Your task to perform on an android device: Open wifi settings Image 0: 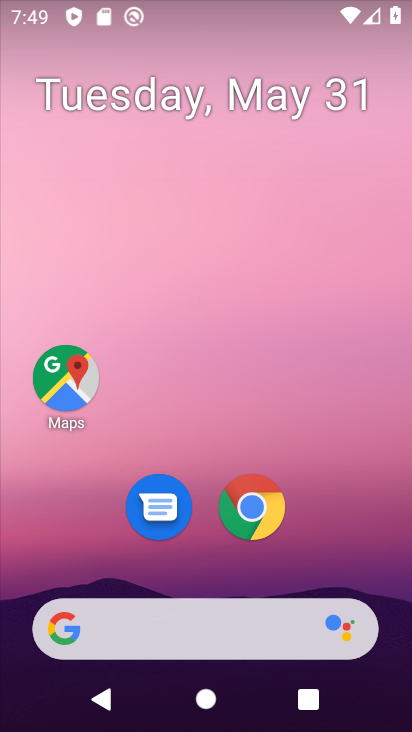
Step 0: drag from (364, 513) to (325, 174)
Your task to perform on an android device: Open wifi settings Image 1: 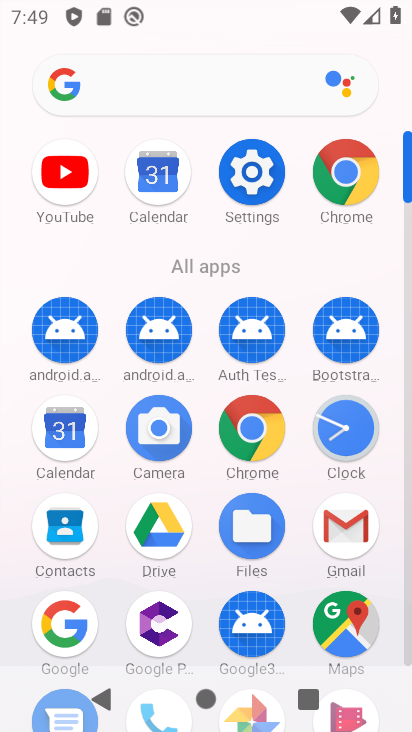
Step 1: click (249, 161)
Your task to perform on an android device: Open wifi settings Image 2: 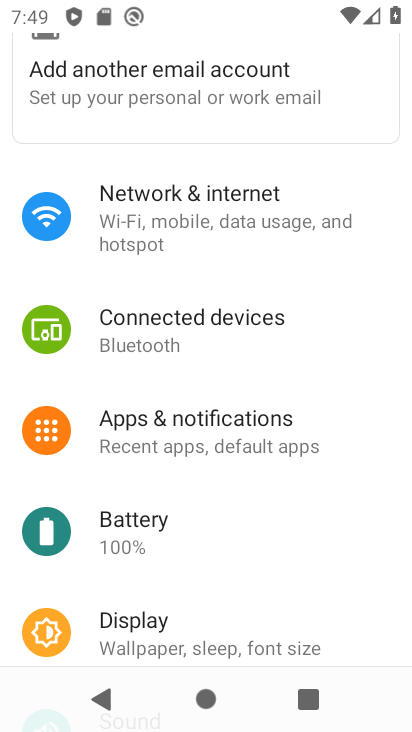
Step 2: click (212, 190)
Your task to perform on an android device: Open wifi settings Image 3: 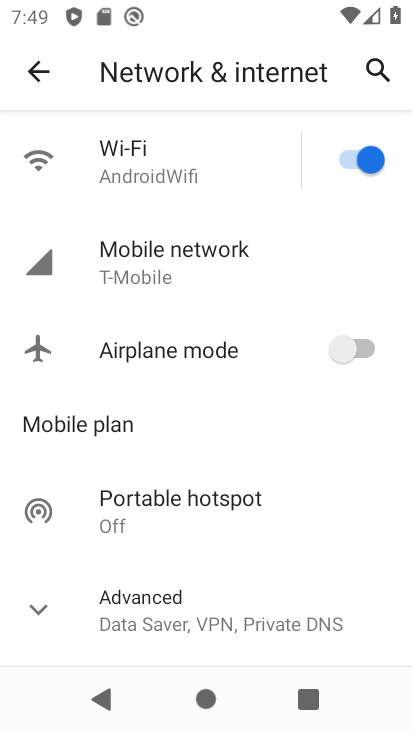
Step 3: click (213, 180)
Your task to perform on an android device: Open wifi settings Image 4: 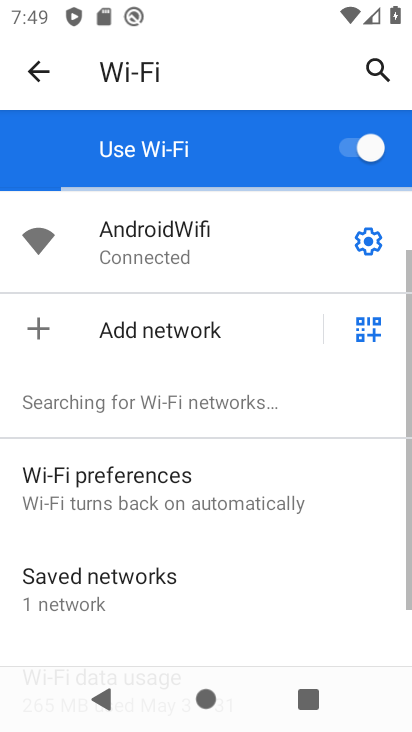
Step 4: click (350, 234)
Your task to perform on an android device: Open wifi settings Image 5: 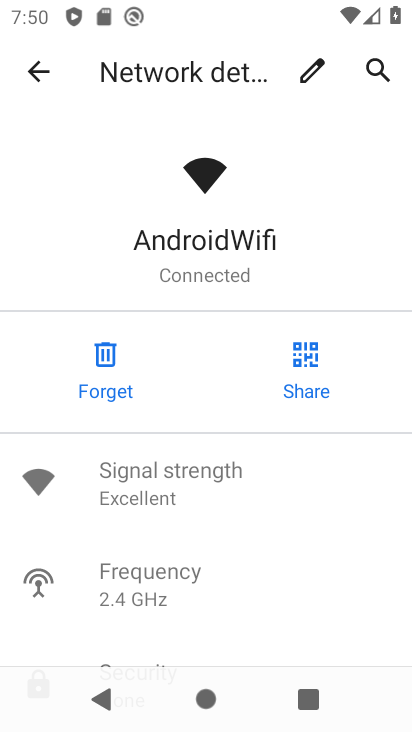
Step 5: task complete